Your task to perform on an android device: find snoozed emails in the gmail app Image 0: 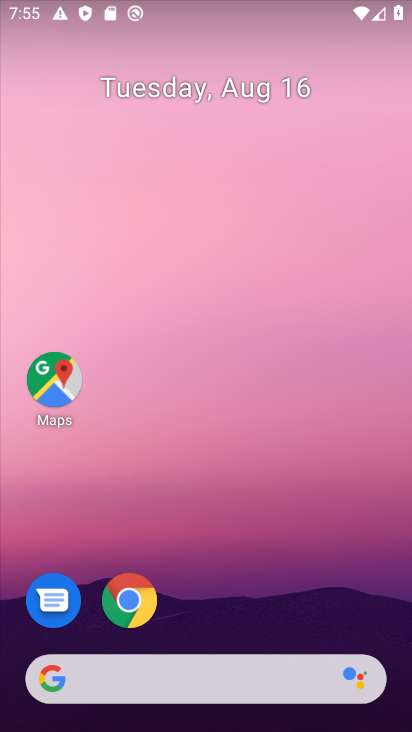
Step 0: drag from (251, 627) to (363, 0)
Your task to perform on an android device: find snoozed emails in the gmail app Image 1: 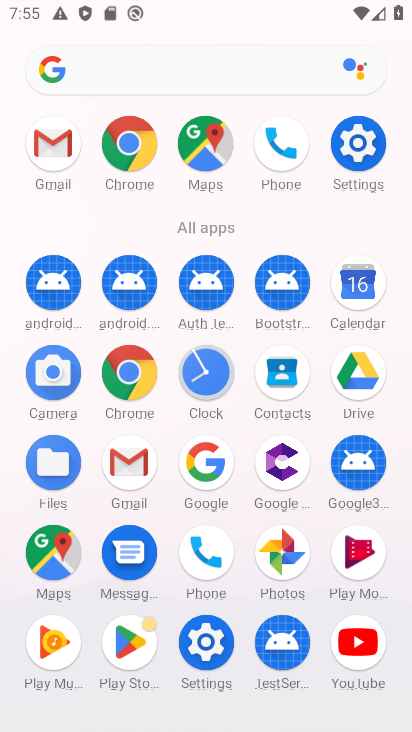
Step 1: click (43, 148)
Your task to perform on an android device: find snoozed emails in the gmail app Image 2: 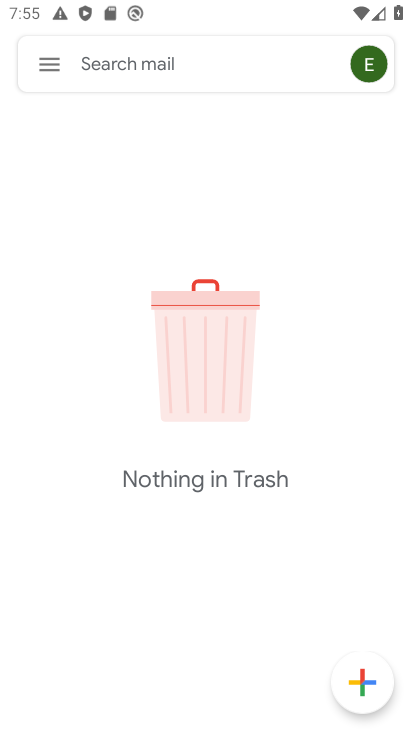
Step 2: click (49, 68)
Your task to perform on an android device: find snoozed emails in the gmail app Image 3: 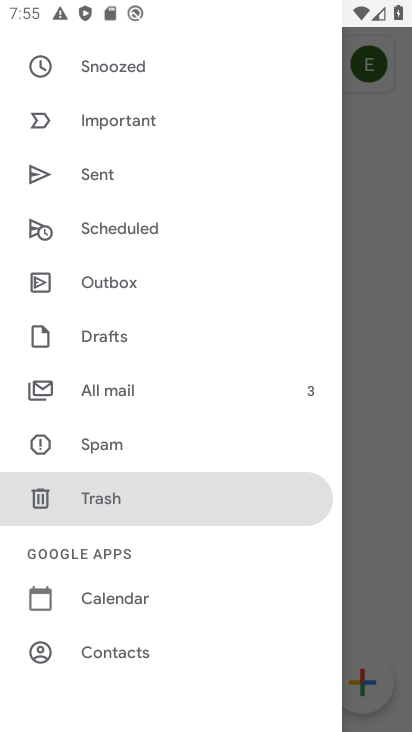
Step 3: drag from (110, 215) to (132, 567)
Your task to perform on an android device: find snoozed emails in the gmail app Image 4: 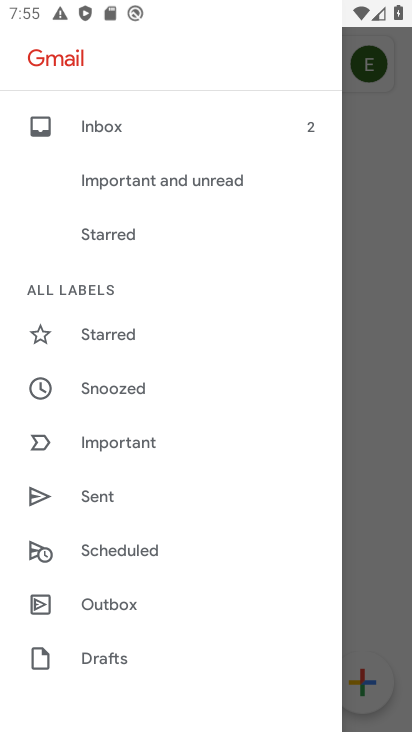
Step 4: click (109, 387)
Your task to perform on an android device: find snoozed emails in the gmail app Image 5: 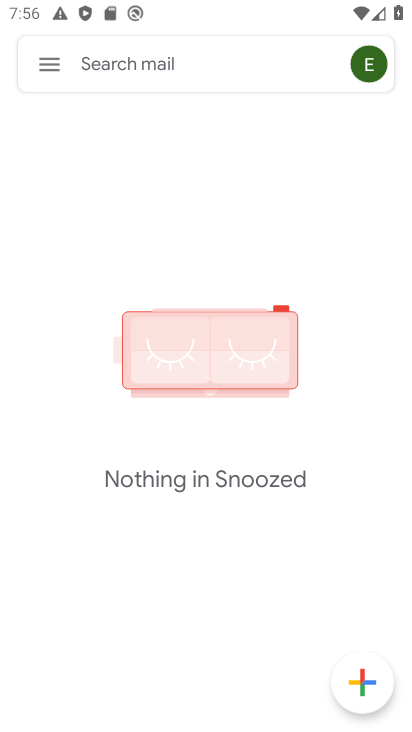
Step 5: task complete